Your task to perform on an android device: Open my contact list Image 0: 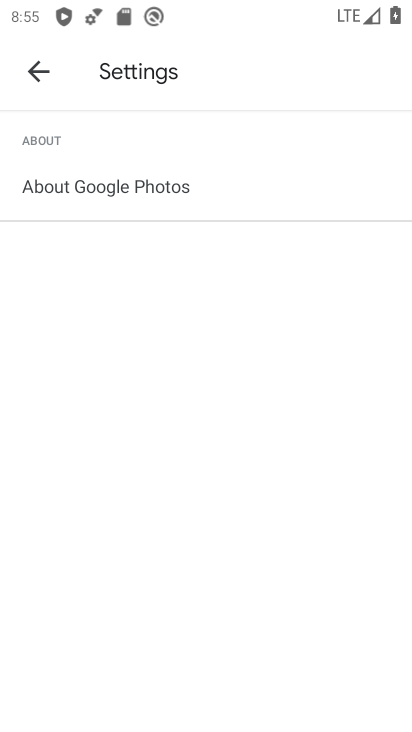
Step 0: press home button
Your task to perform on an android device: Open my contact list Image 1: 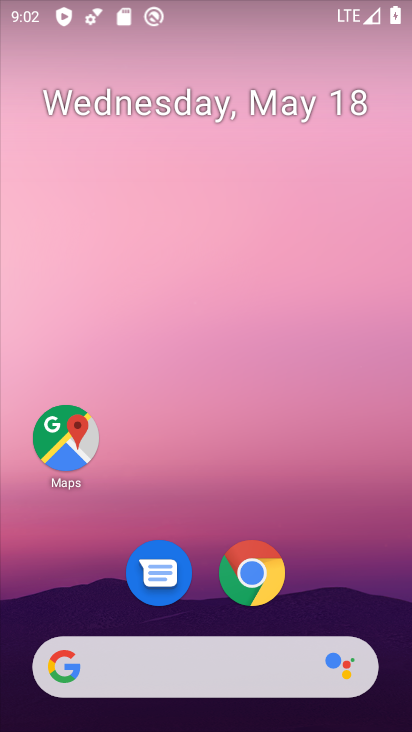
Step 1: drag from (112, 601) to (104, 9)
Your task to perform on an android device: Open my contact list Image 2: 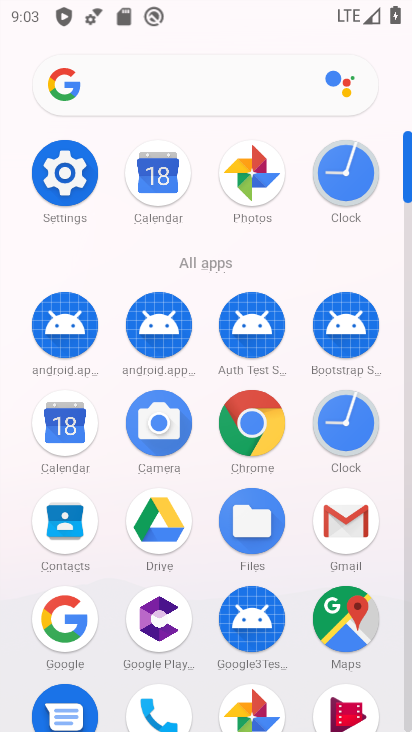
Step 2: click (63, 510)
Your task to perform on an android device: Open my contact list Image 3: 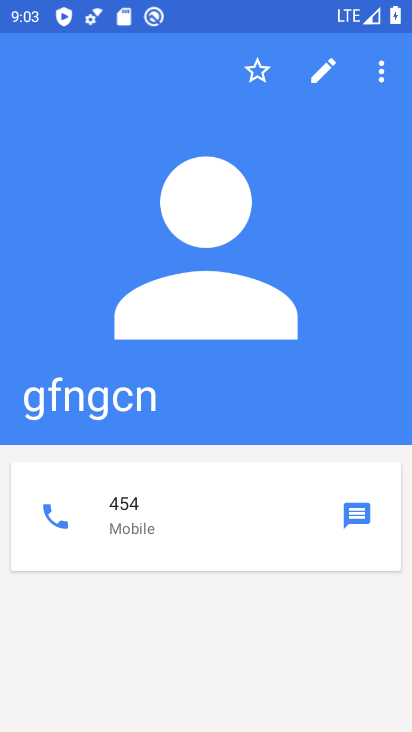
Step 3: press home button
Your task to perform on an android device: Open my contact list Image 4: 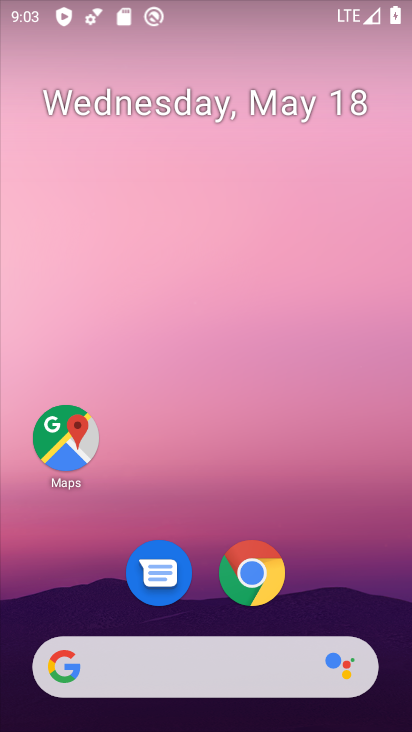
Step 4: drag from (115, 721) to (136, 24)
Your task to perform on an android device: Open my contact list Image 5: 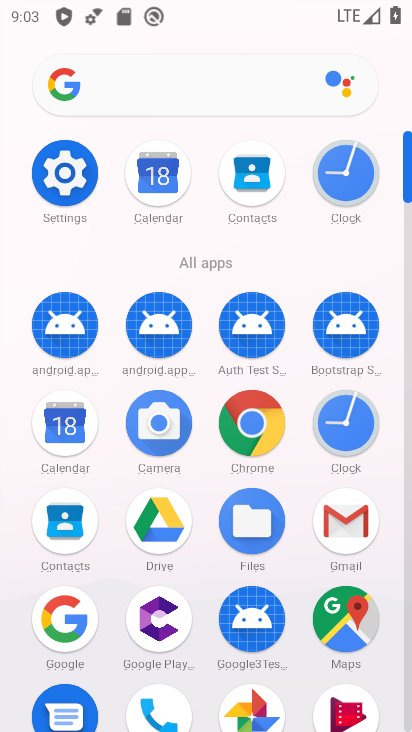
Step 5: click (62, 549)
Your task to perform on an android device: Open my contact list Image 6: 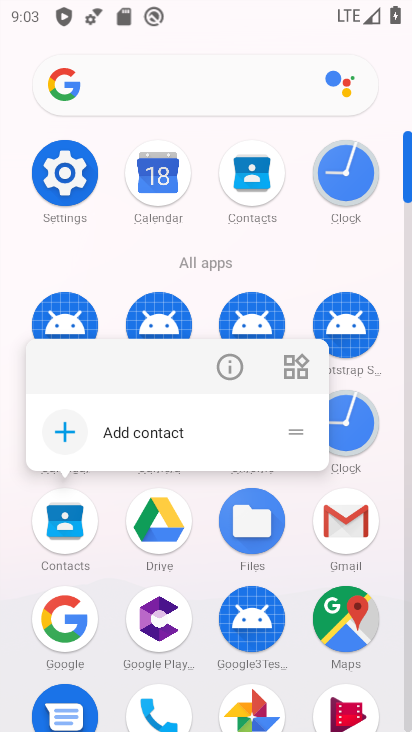
Step 6: click (81, 534)
Your task to perform on an android device: Open my contact list Image 7: 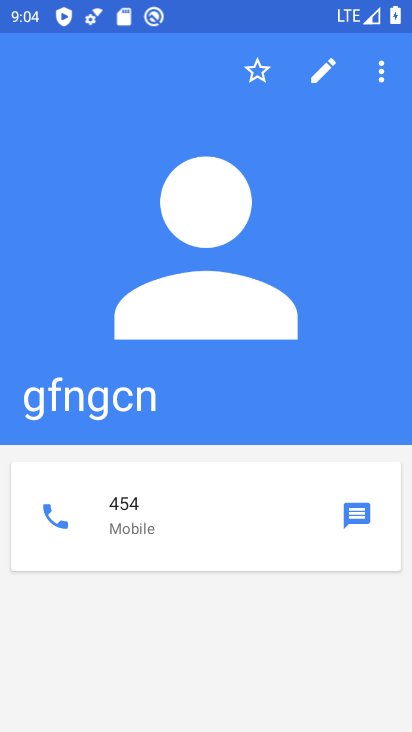
Step 7: task complete